Your task to perform on an android device: Go to sound settings Image 0: 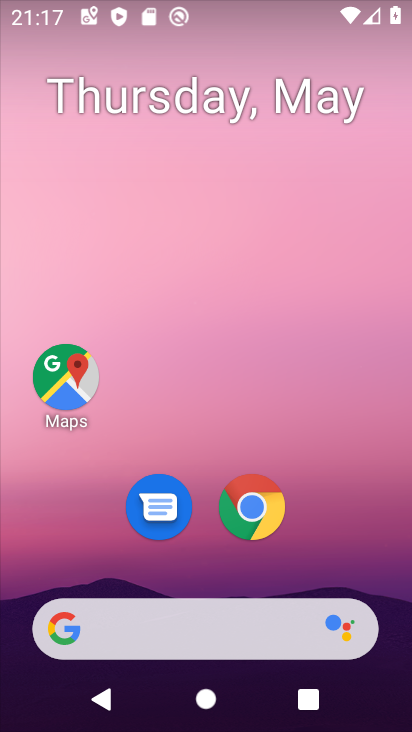
Step 0: drag from (239, 611) to (217, 273)
Your task to perform on an android device: Go to sound settings Image 1: 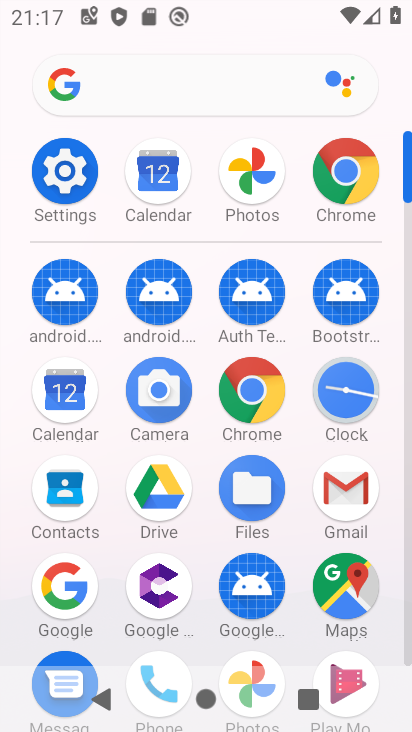
Step 1: click (47, 208)
Your task to perform on an android device: Go to sound settings Image 2: 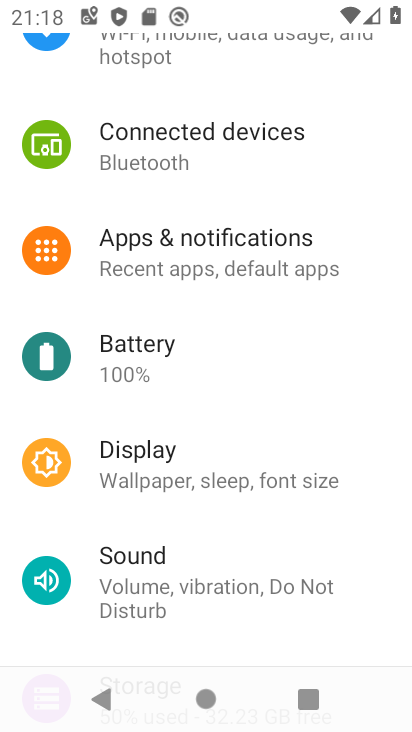
Step 2: click (172, 572)
Your task to perform on an android device: Go to sound settings Image 3: 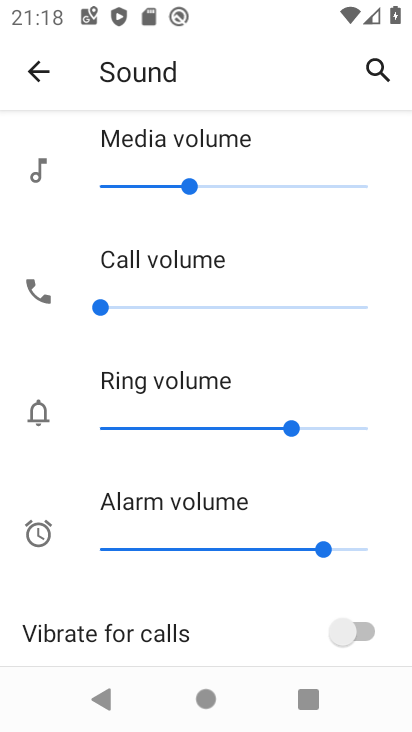
Step 3: task complete